Your task to perform on an android device: turn pop-ups on in chrome Image 0: 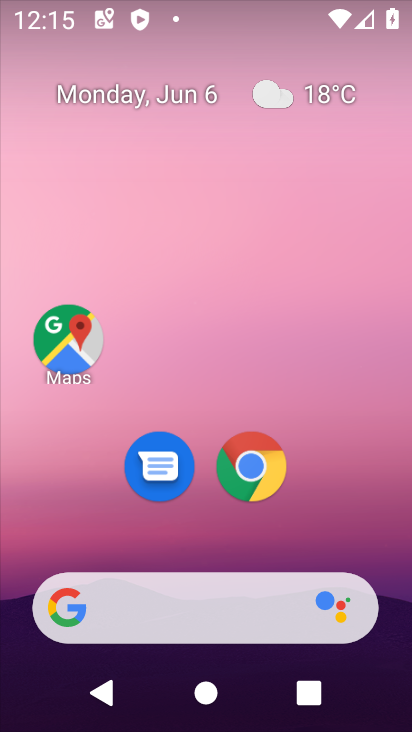
Step 0: drag from (323, 513) to (201, 39)
Your task to perform on an android device: turn pop-ups on in chrome Image 1: 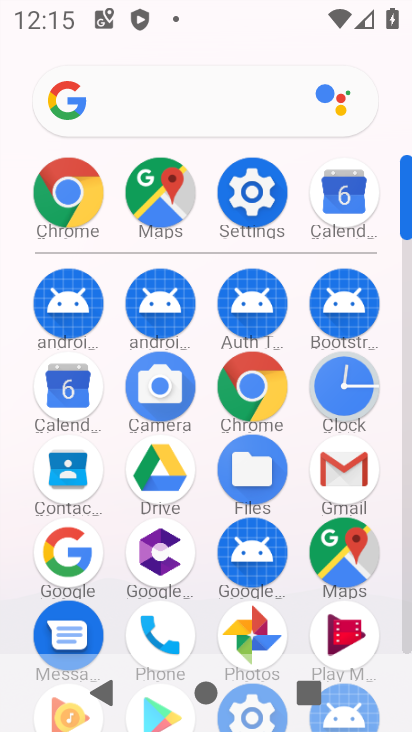
Step 1: drag from (3, 532) to (13, 266)
Your task to perform on an android device: turn pop-ups on in chrome Image 2: 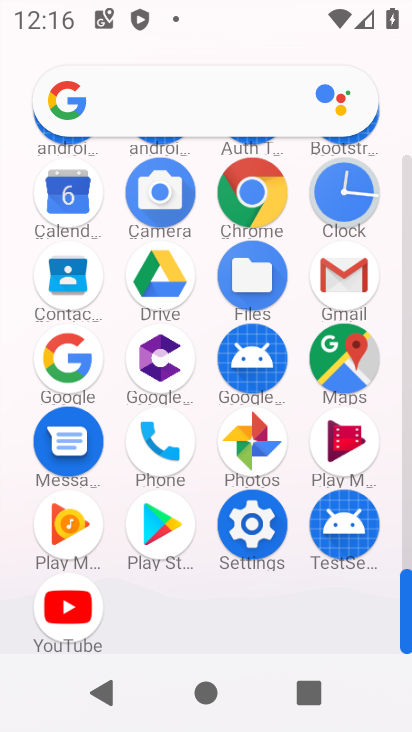
Step 2: drag from (23, 466) to (17, 228)
Your task to perform on an android device: turn pop-ups on in chrome Image 3: 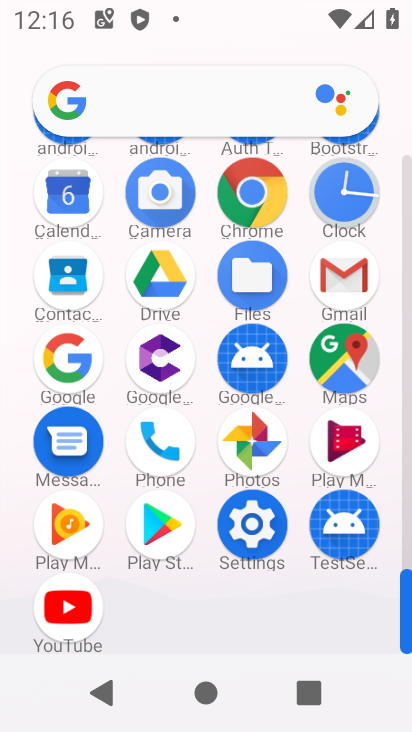
Step 3: click (249, 189)
Your task to perform on an android device: turn pop-ups on in chrome Image 4: 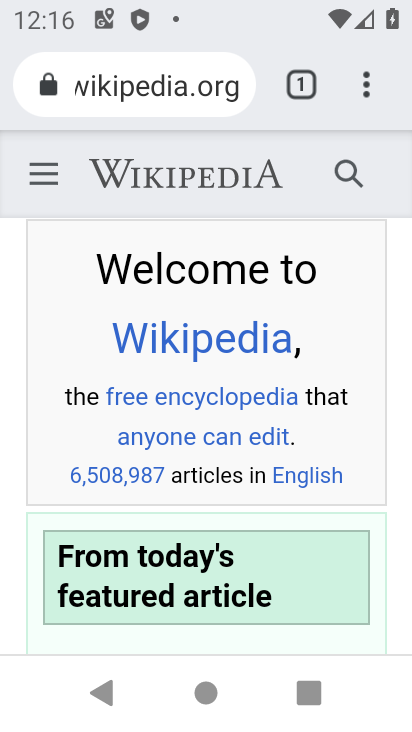
Step 4: drag from (366, 88) to (180, 509)
Your task to perform on an android device: turn pop-ups on in chrome Image 5: 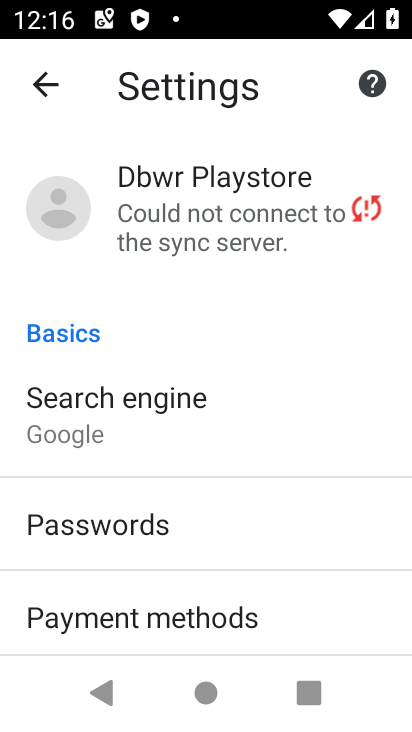
Step 5: drag from (227, 554) to (220, 317)
Your task to perform on an android device: turn pop-ups on in chrome Image 6: 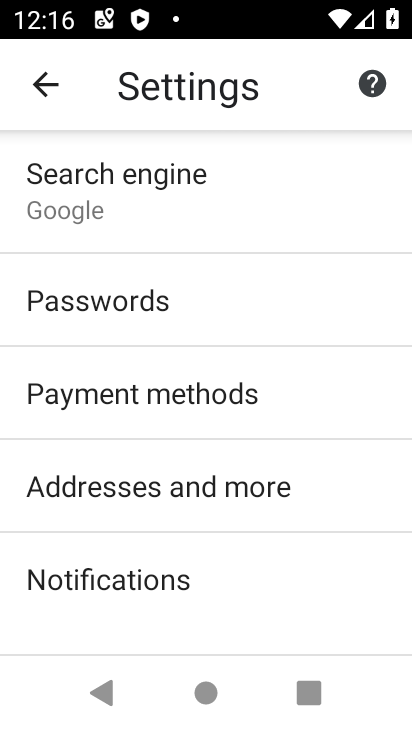
Step 6: drag from (222, 532) to (251, 262)
Your task to perform on an android device: turn pop-ups on in chrome Image 7: 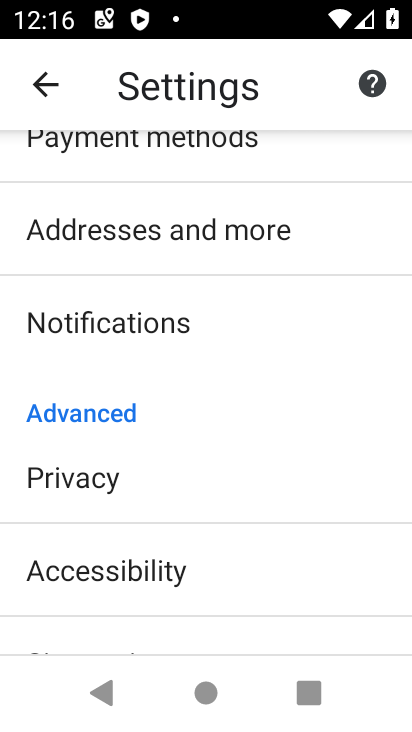
Step 7: drag from (238, 538) to (262, 198)
Your task to perform on an android device: turn pop-ups on in chrome Image 8: 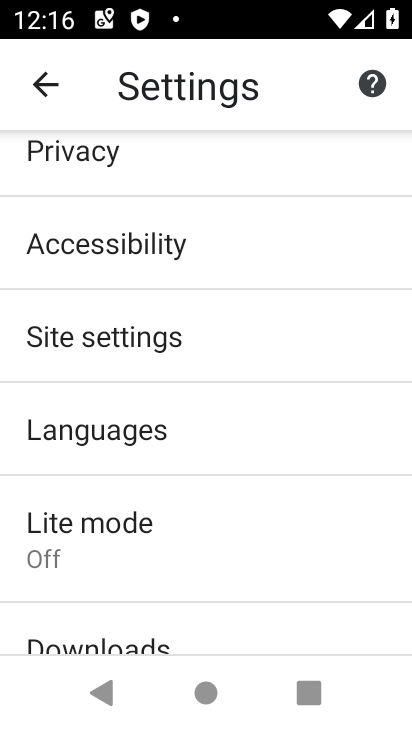
Step 8: drag from (214, 569) to (247, 238)
Your task to perform on an android device: turn pop-ups on in chrome Image 9: 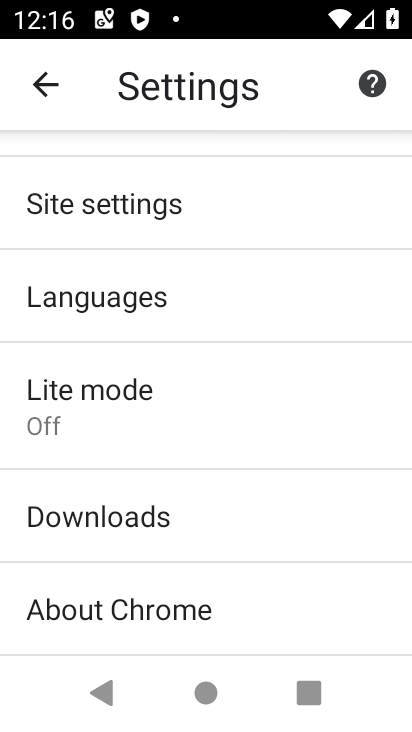
Step 9: click (170, 397)
Your task to perform on an android device: turn pop-ups on in chrome Image 10: 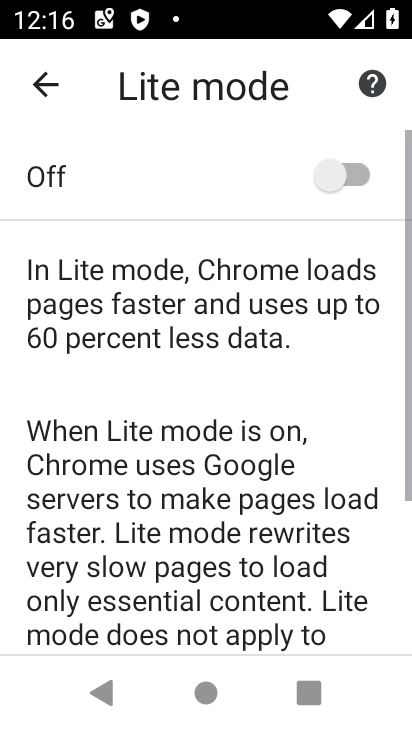
Step 10: click (336, 176)
Your task to perform on an android device: turn pop-ups on in chrome Image 11: 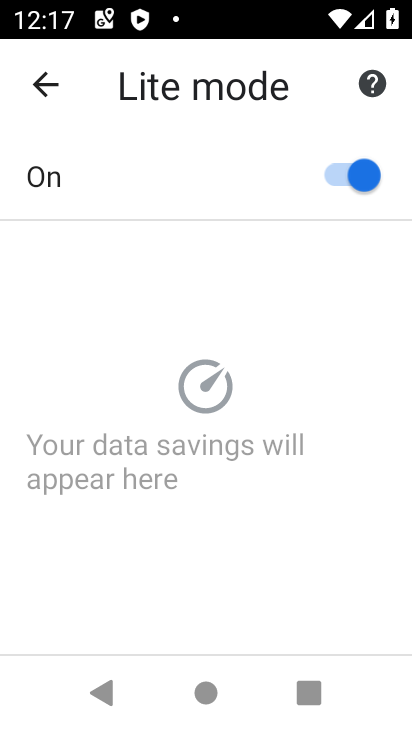
Step 11: task complete